Your task to perform on an android device: show emergency info Image 0: 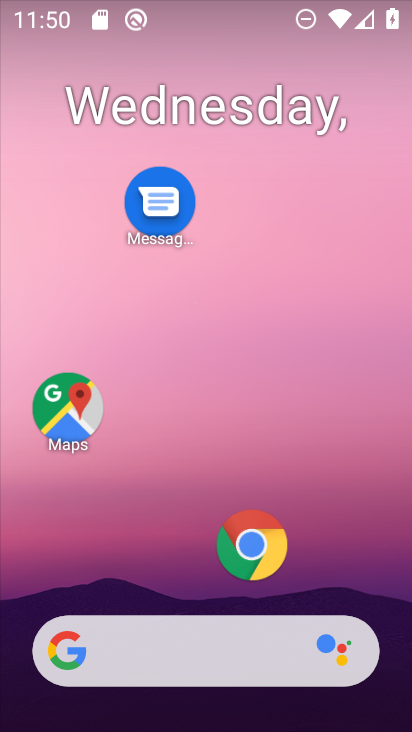
Step 0: drag from (192, 587) to (196, 235)
Your task to perform on an android device: show emergency info Image 1: 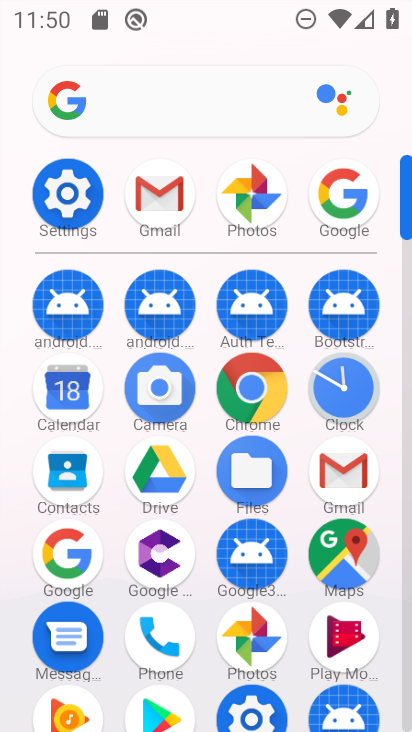
Step 1: click (66, 209)
Your task to perform on an android device: show emergency info Image 2: 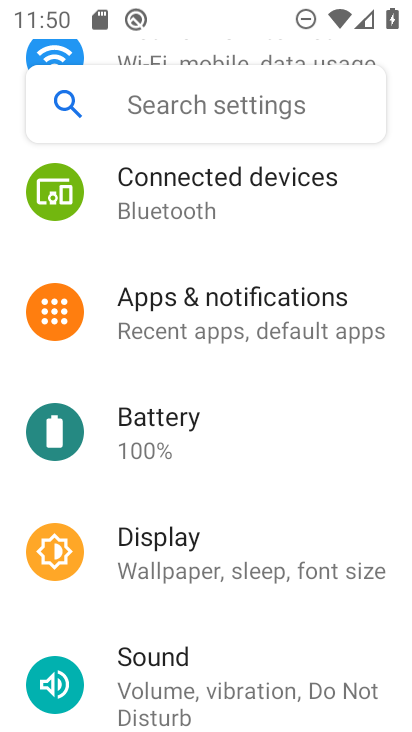
Step 2: drag from (250, 625) to (265, 281)
Your task to perform on an android device: show emergency info Image 3: 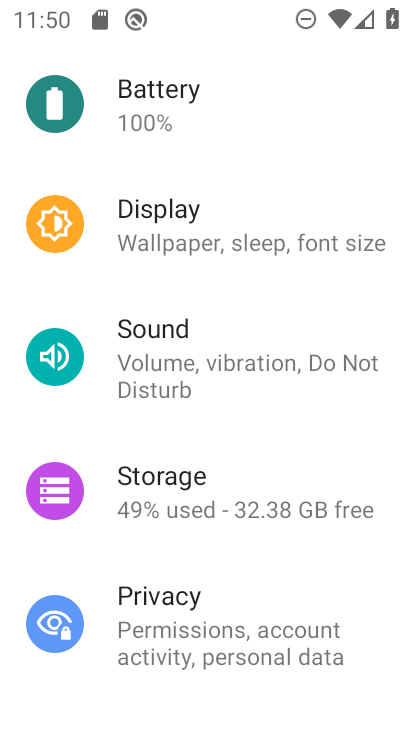
Step 3: drag from (276, 598) to (272, 334)
Your task to perform on an android device: show emergency info Image 4: 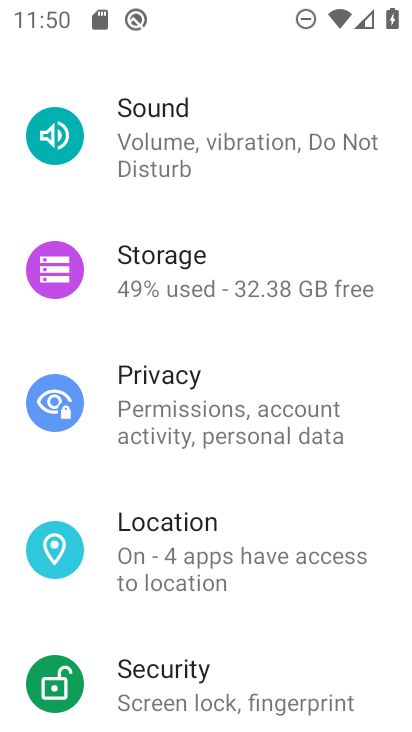
Step 4: drag from (224, 619) to (236, 271)
Your task to perform on an android device: show emergency info Image 5: 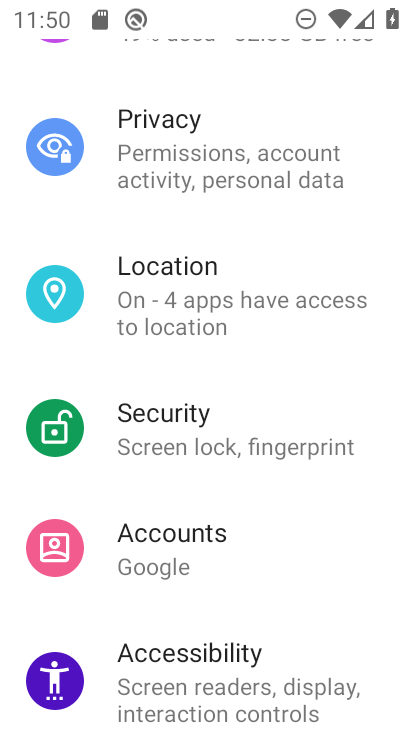
Step 5: drag from (258, 621) to (273, 294)
Your task to perform on an android device: show emergency info Image 6: 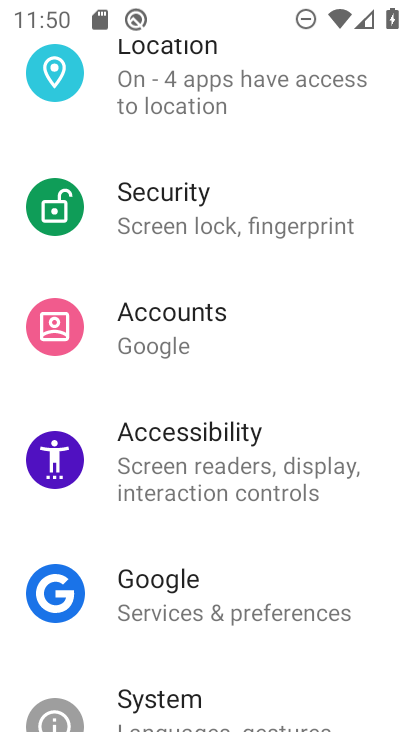
Step 6: drag from (267, 623) to (296, 316)
Your task to perform on an android device: show emergency info Image 7: 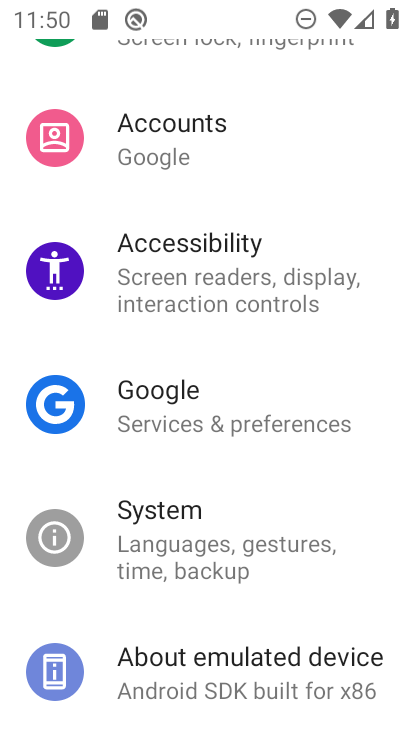
Step 7: drag from (278, 590) to (278, 319)
Your task to perform on an android device: show emergency info Image 8: 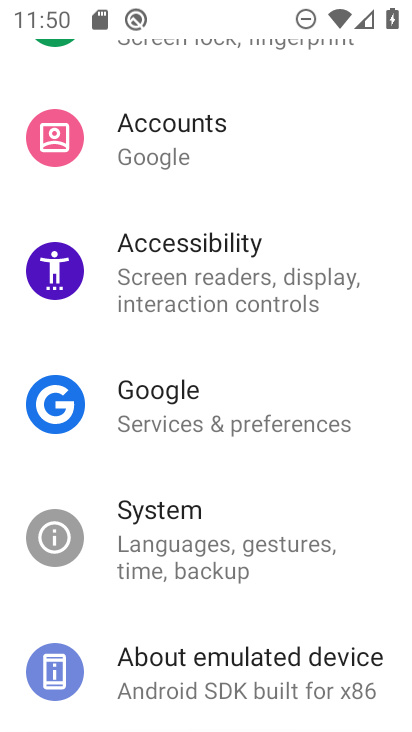
Step 8: click (199, 665)
Your task to perform on an android device: show emergency info Image 9: 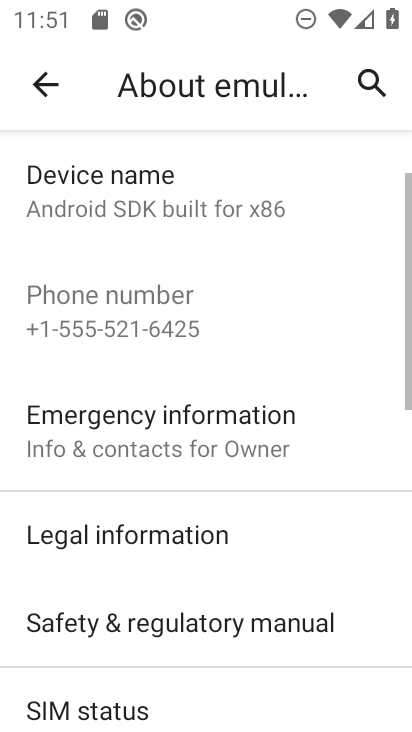
Step 9: drag from (231, 635) to (271, 340)
Your task to perform on an android device: show emergency info Image 10: 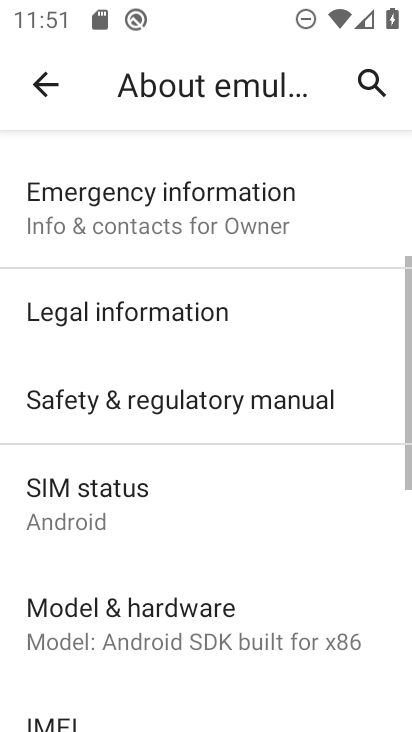
Step 10: drag from (231, 656) to (292, 375)
Your task to perform on an android device: show emergency info Image 11: 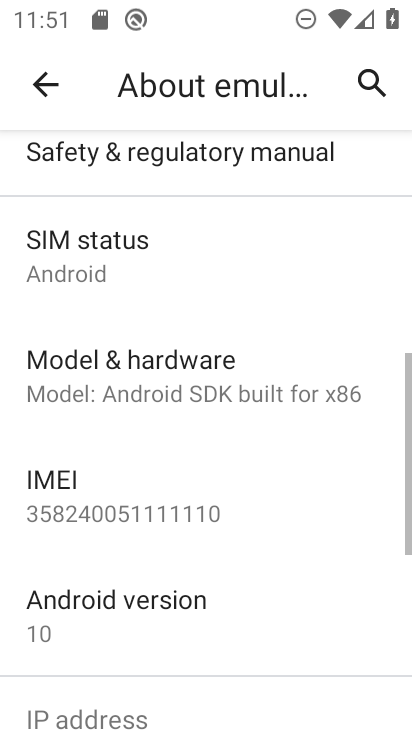
Step 11: drag from (217, 597) to (242, 327)
Your task to perform on an android device: show emergency info Image 12: 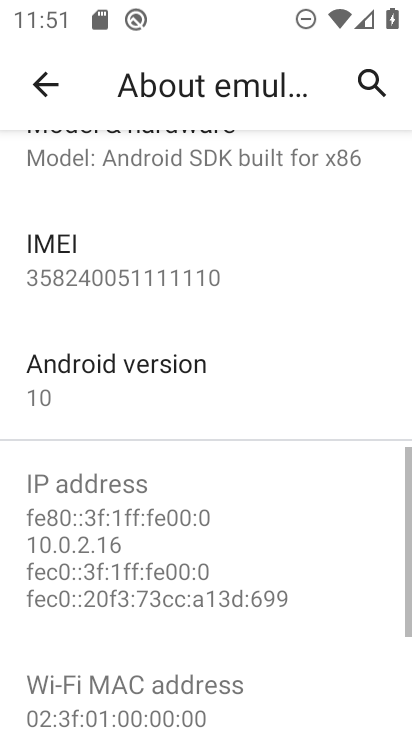
Step 12: click (220, 599)
Your task to perform on an android device: show emergency info Image 13: 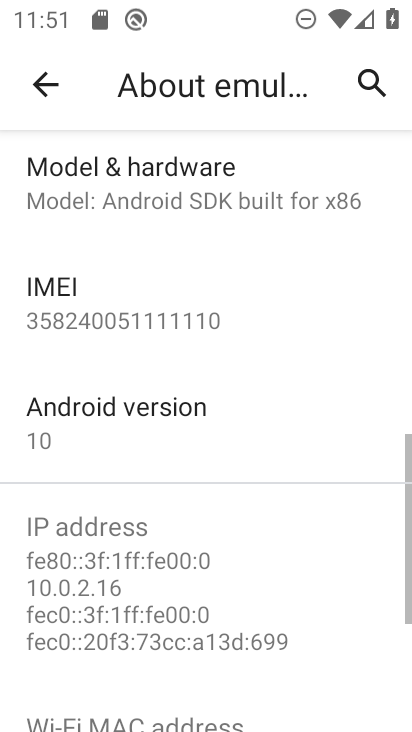
Step 13: drag from (234, 299) to (235, 586)
Your task to perform on an android device: show emergency info Image 14: 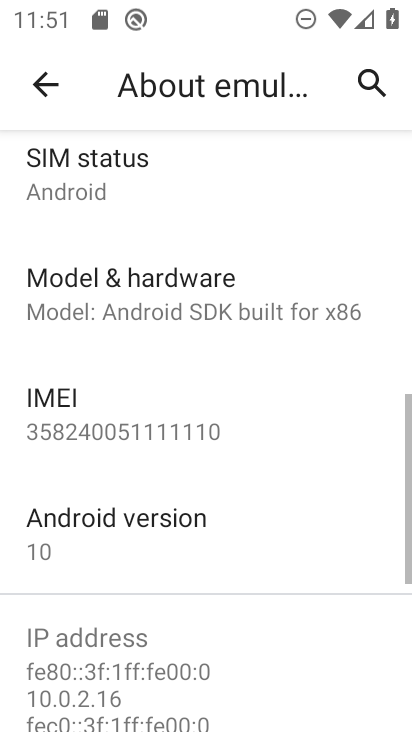
Step 14: drag from (233, 378) to (233, 596)
Your task to perform on an android device: show emergency info Image 15: 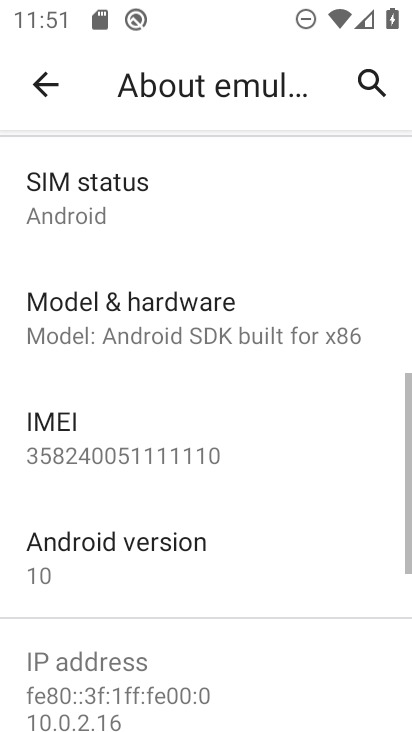
Step 15: drag from (219, 338) to (241, 589)
Your task to perform on an android device: show emergency info Image 16: 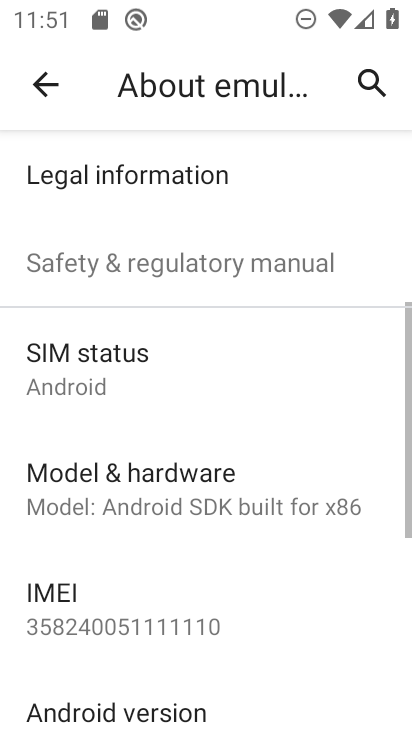
Step 16: drag from (255, 339) to (255, 648)
Your task to perform on an android device: show emergency info Image 17: 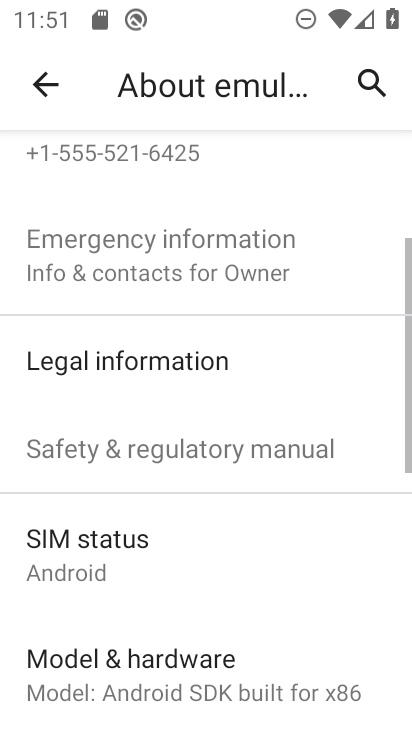
Step 17: drag from (240, 225) to (243, 574)
Your task to perform on an android device: show emergency info Image 18: 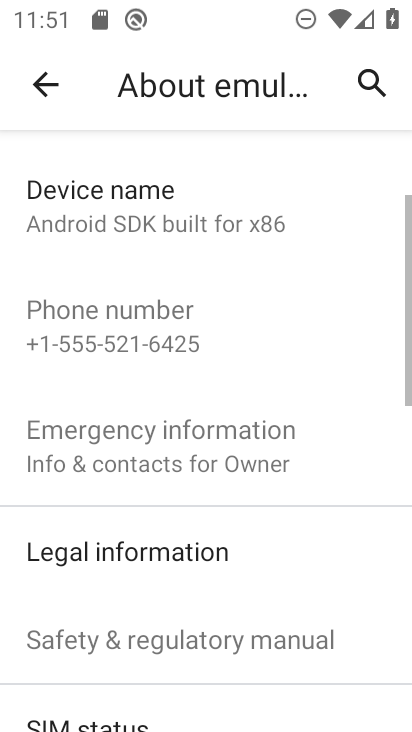
Step 18: drag from (241, 267) to (242, 487)
Your task to perform on an android device: show emergency info Image 19: 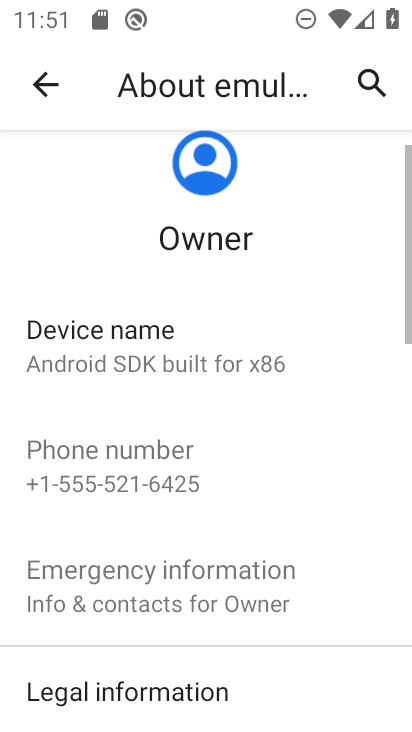
Step 19: click (194, 605)
Your task to perform on an android device: show emergency info Image 20: 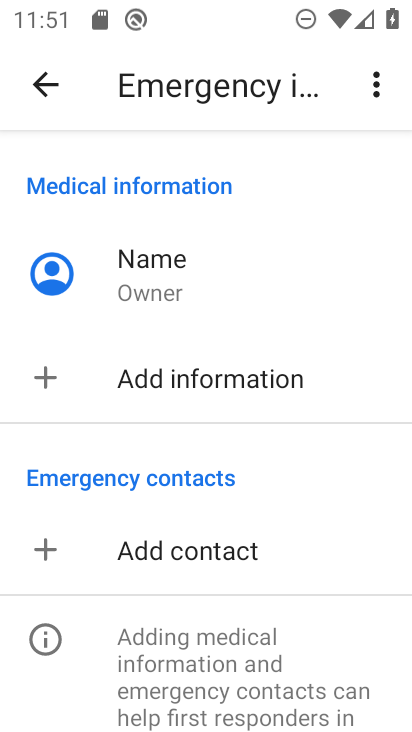
Step 20: task complete